Your task to perform on an android device: open a bookmark in the chrome app Image 0: 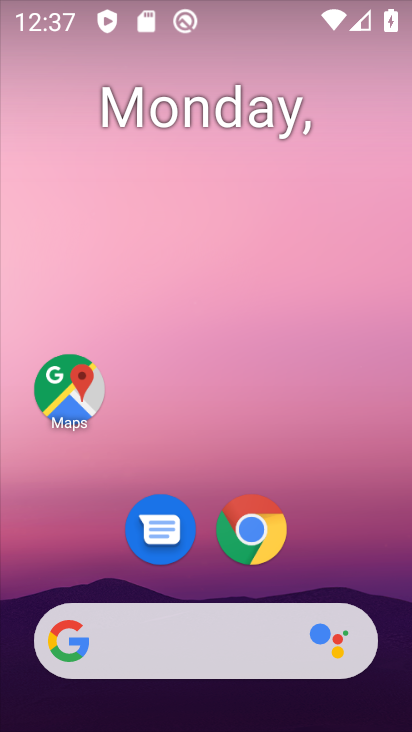
Step 0: click (255, 528)
Your task to perform on an android device: open a bookmark in the chrome app Image 1: 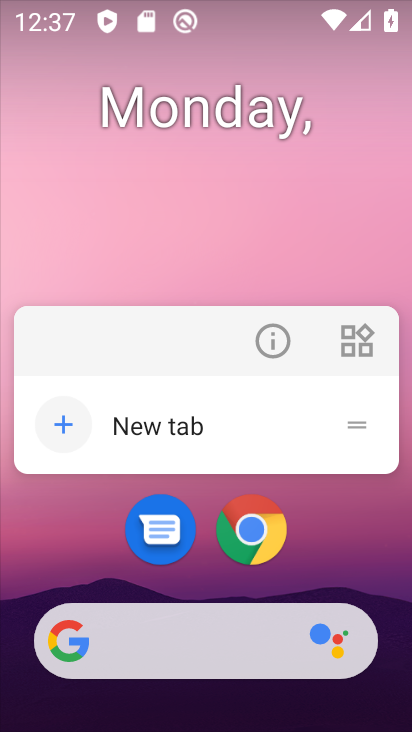
Step 1: click (276, 346)
Your task to perform on an android device: open a bookmark in the chrome app Image 2: 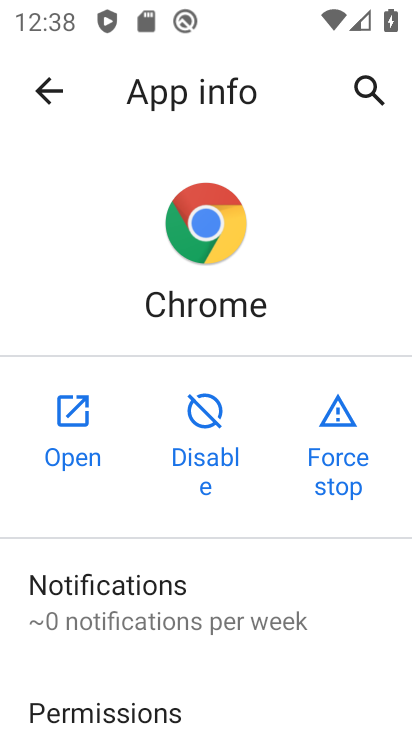
Step 2: click (68, 423)
Your task to perform on an android device: open a bookmark in the chrome app Image 3: 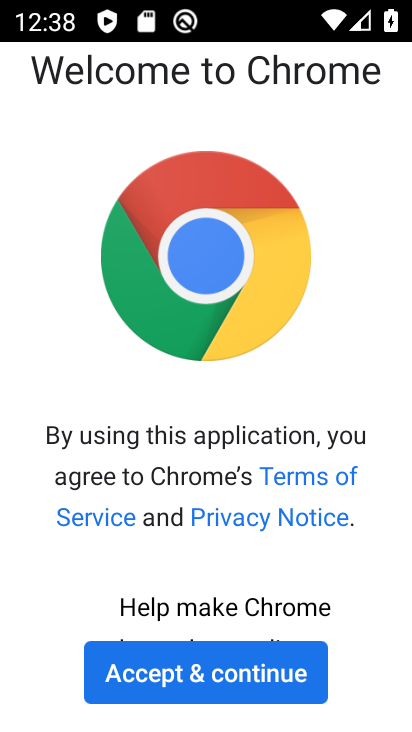
Step 3: click (180, 675)
Your task to perform on an android device: open a bookmark in the chrome app Image 4: 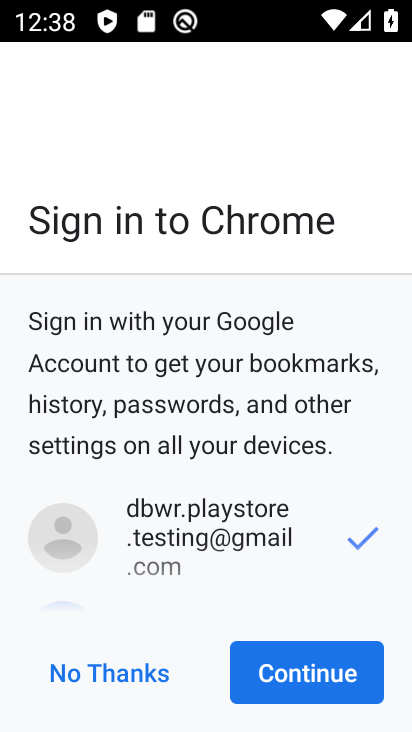
Step 4: click (338, 672)
Your task to perform on an android device: open a bookmark in the chrome app Image 5: 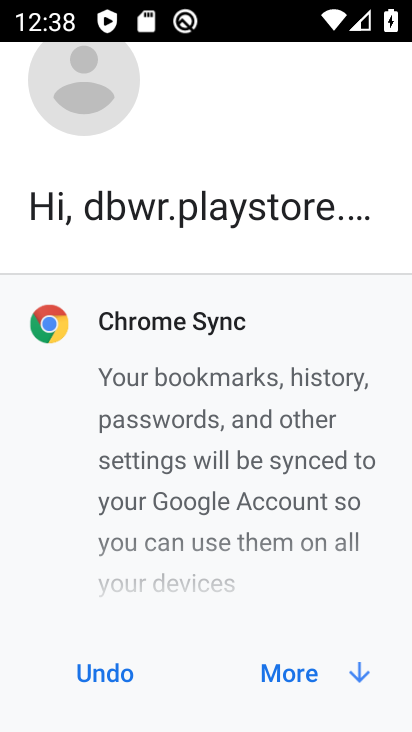
Step 5: click (299, 662)
Your task to perform on an android device: open a bookmark in the chrome app Image 6: 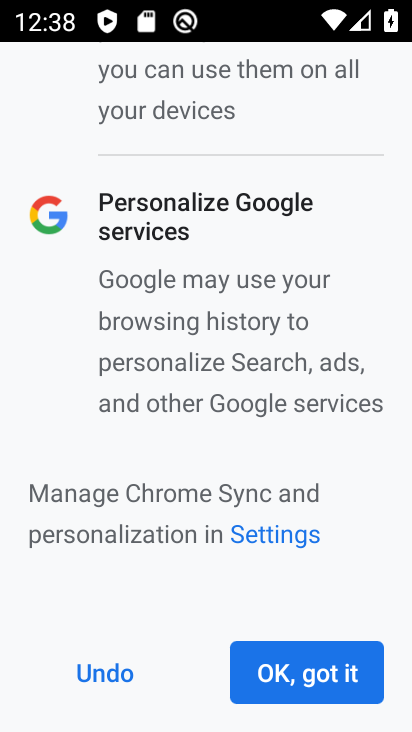
Step 6: click (287, 670)
Your task to perform on an android device: open a bookmark in the chrome app Image 7: 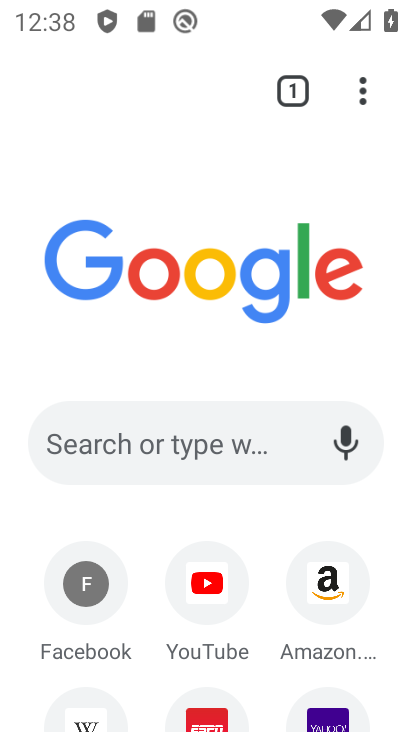
Step 7: click (361, 91)
Your task to perform on an android device: open a bookmark in the chrome app Image 8: 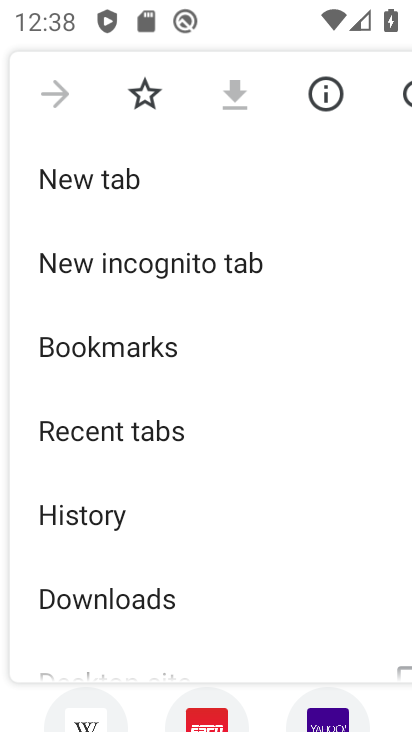
Step 8: click (164, 347)
Your task to perform on an android device: open a bookmark in the chrome app Image 9: 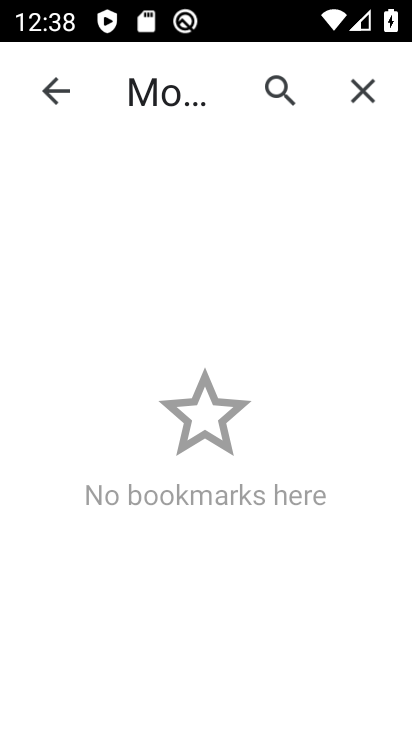
Step 9: task complete